Your task to perform on an android device: Open wifi settings Image 0: 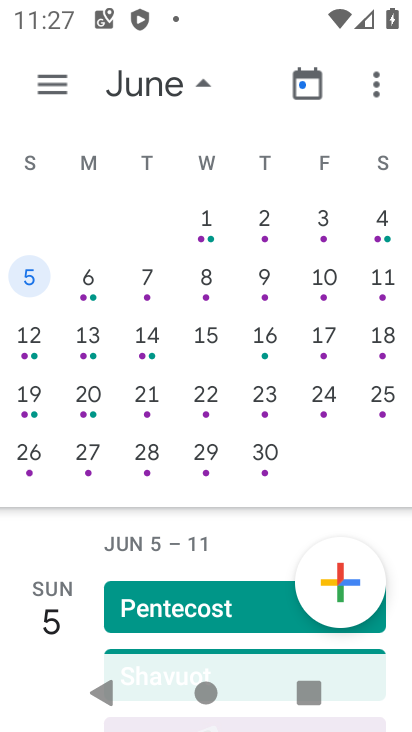
Step 0: press home button
Your task to perform on an android device: Open wifi settings Image 1: 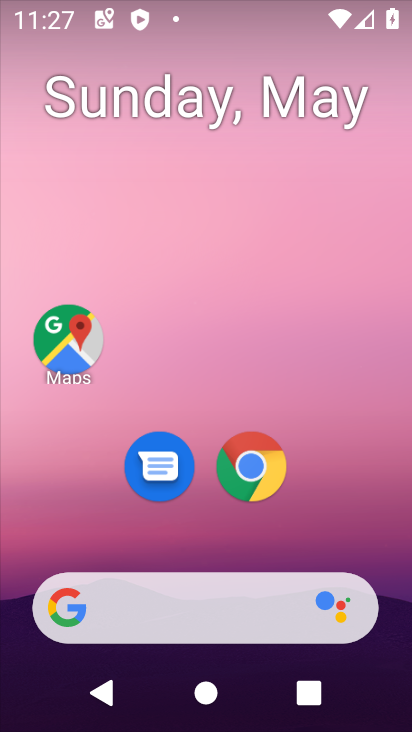
Step 1: drag from (389, 612) to (293, 60)
Your task to perform on an android device: Open wifi settings Image 2: 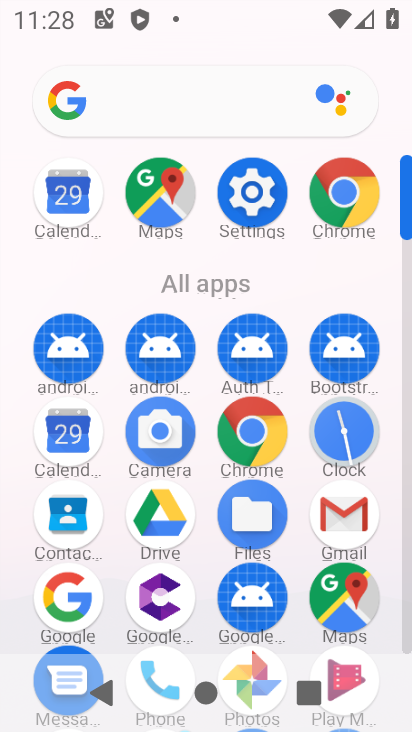
Step 2: drag from (201, 561) to (220, 37)
Your task to perform on an android device: Open wifi settings Image 3: 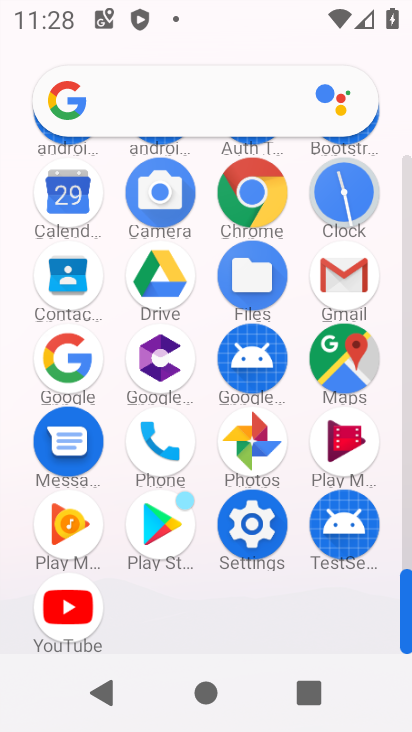
Step 3: click (292, 542)
Your task to perform on an android device: Open wifi settings Image 4: 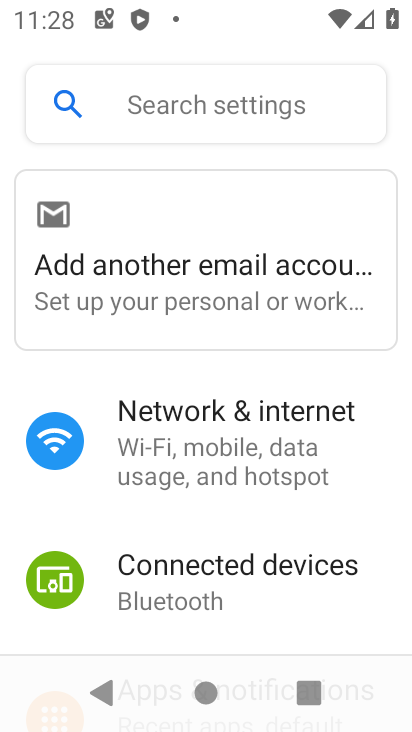
Step 4: click (189, 433)
Your task to perform on an android device: Open wifi settings Image 5: 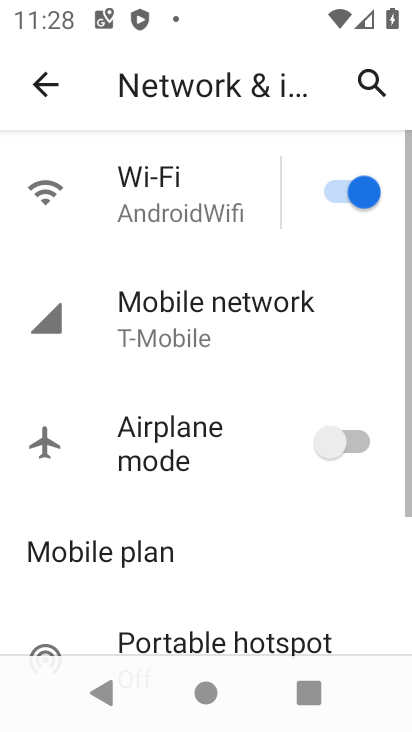
Step 5: click (151, 193)
Your task to perform on an android device: Open wifi settings Image 6: 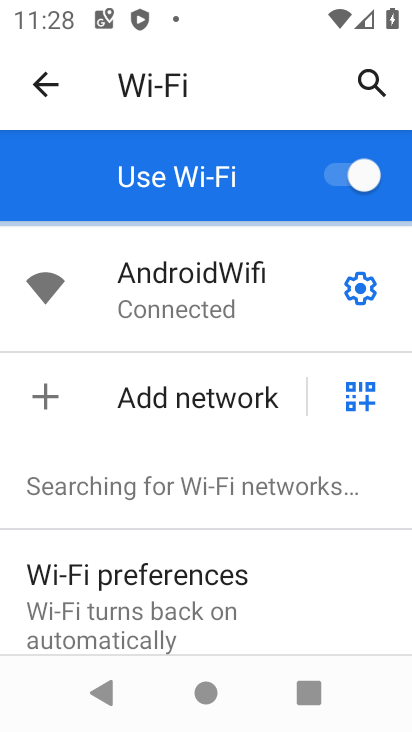
Step 6: task complete